Your task to perform on an android device: turn off picture-in-picture Image 0: 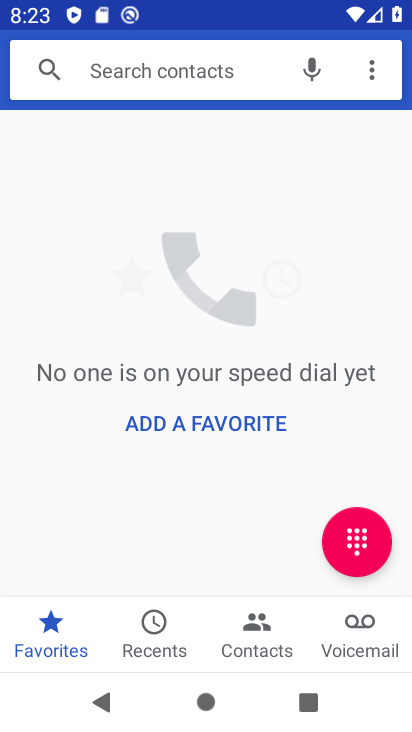
Step 0: press home button
Your task to perform on an android device: turn off picture-in-picture Image 1: 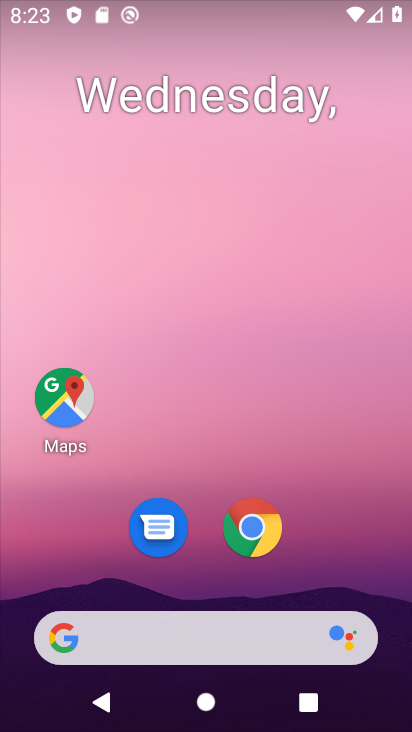
Step 1: drag from (368, 595) to (360, 86)
Your task to perform on an android device: turn off picture-in-picture Image 2: 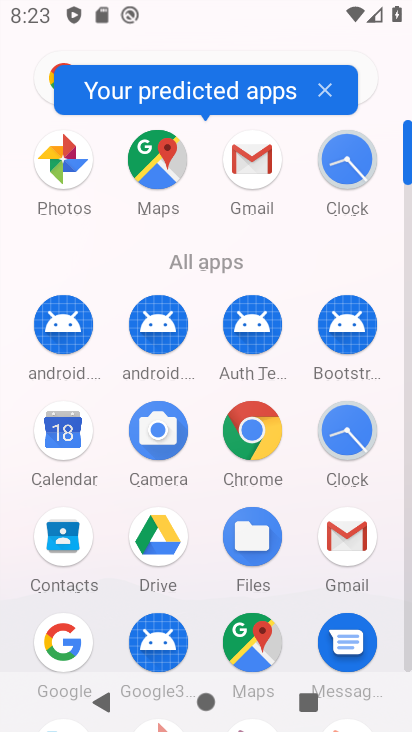
Step 2: press home button
Your task to perform on an android device: turn off picture-in-picture Image 3: 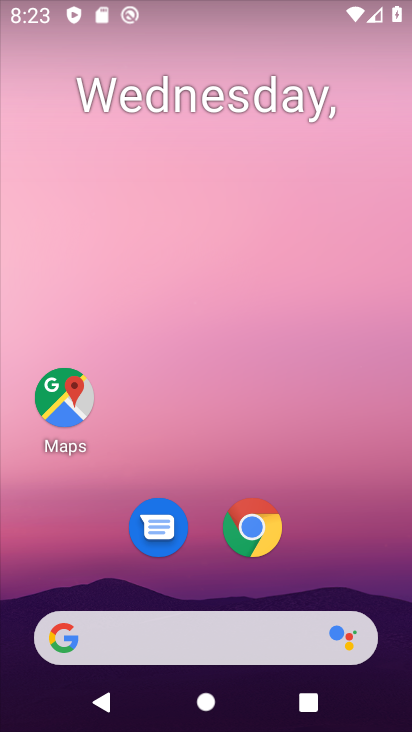
Step 3: click (255, 524)
Your task to perform on an android device: turn off picture-in-picture Image 4: 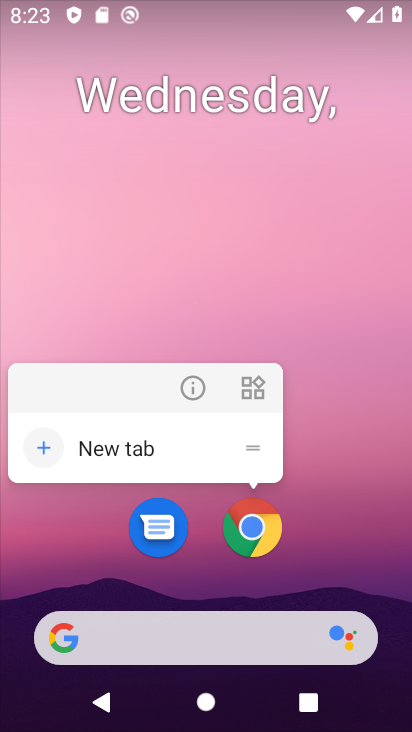
Step 4: click (191, 383)
Your task to perform on an android device: turn off picture-in-picture Image 5: 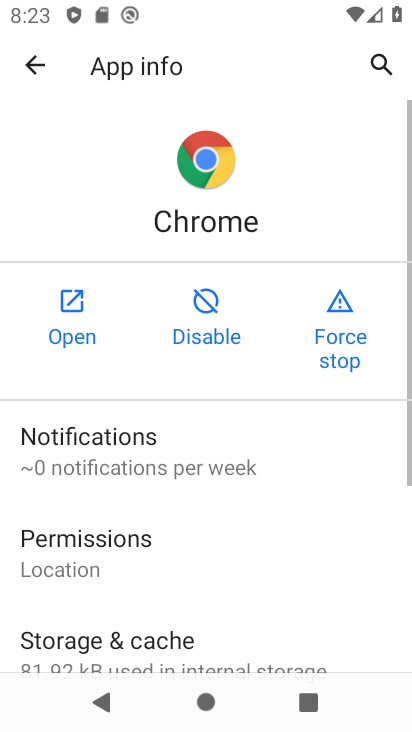
Step 5: drag from (233, 505) to (286, 3)
Your task to perform on an android device: turn off picture-in-picture Image 6: 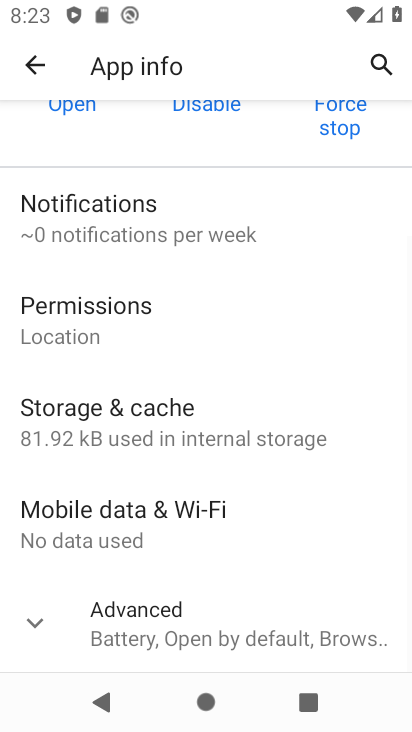
Step 6: click (110, 647)
Your task to perform on an android device: turn off picture-in-picture Image 7: 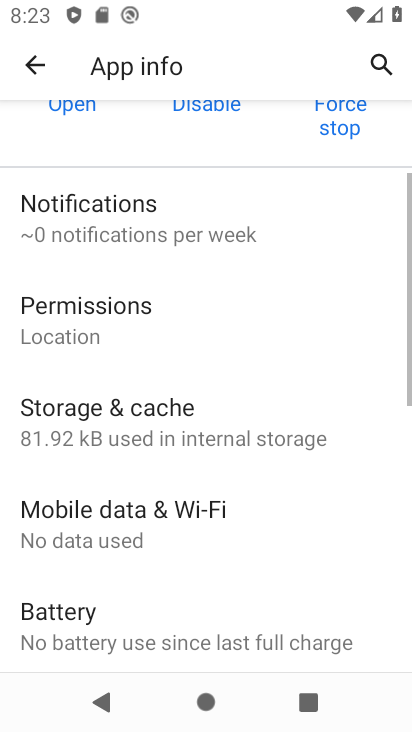
Step 7: drag from (253, 594) to (271, 19)
Your task to perform on an android device: turn off picture-in-picture Image 8: 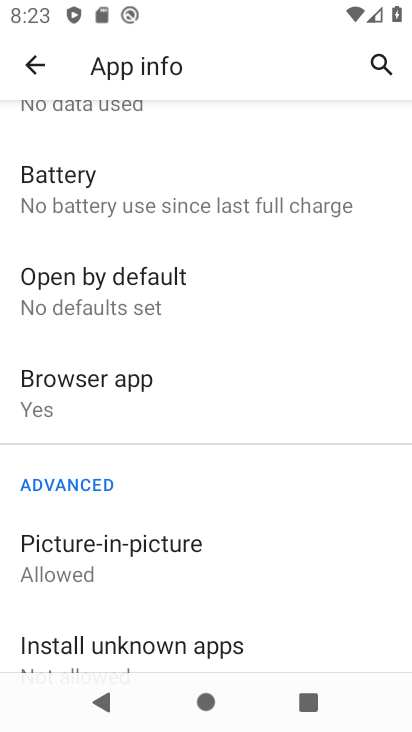
Step 8: click (83, 576)
Your task to perform on an android device: turn off picture-in-picture Image 9: 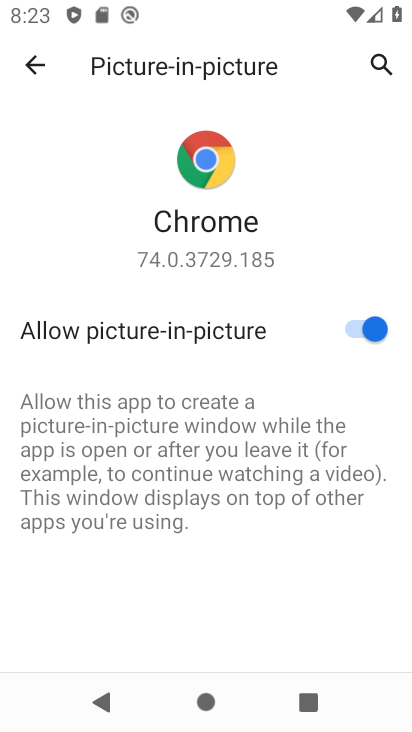
Step 9: click (375, 326)
Your task to perform on an android device: turn off picture-in-picture Image 10: 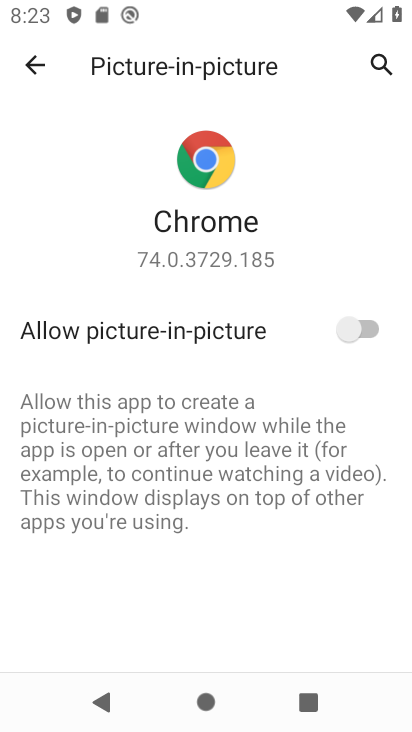
Step 10: task complete